Your task to perform on an android device: Go to notification settings Image 0: 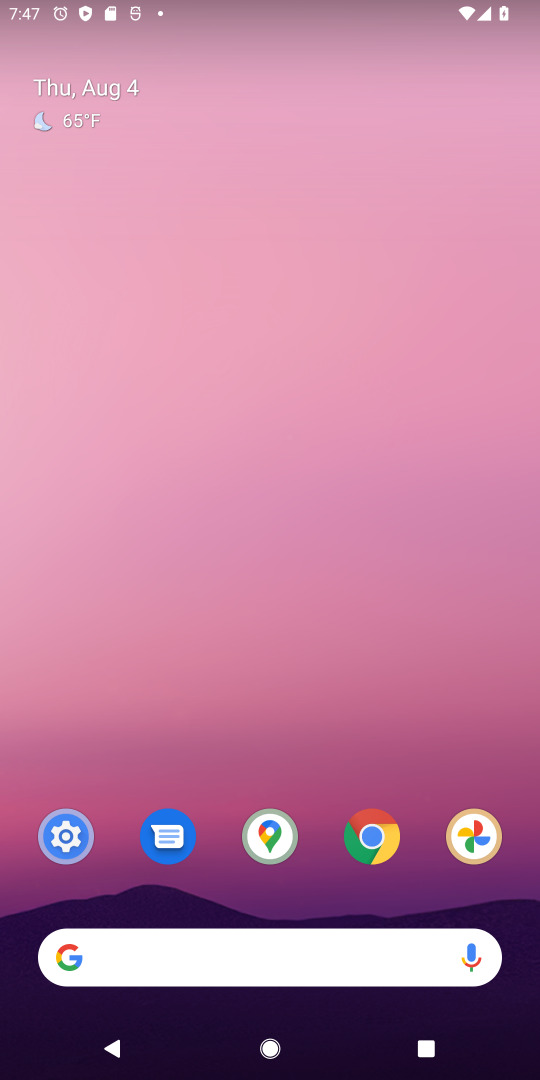
Step 0: drag from (252, 878) to (326, 3)
Your task to perform on an android device: Go to notification settings Image 1: 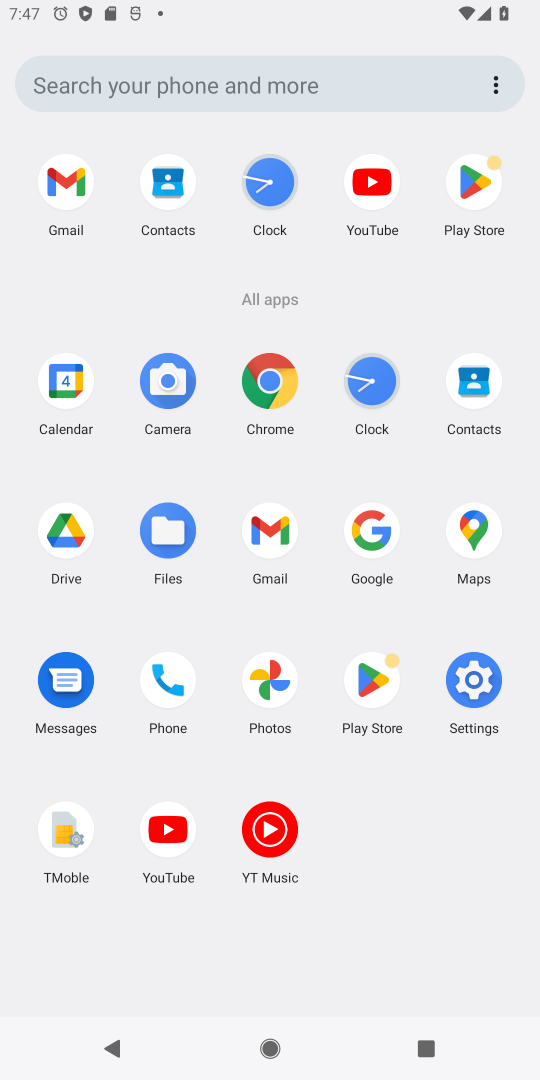
Step 1: click (466, 683)
Your task to perform on an android device: Go to notification settings Image 2: 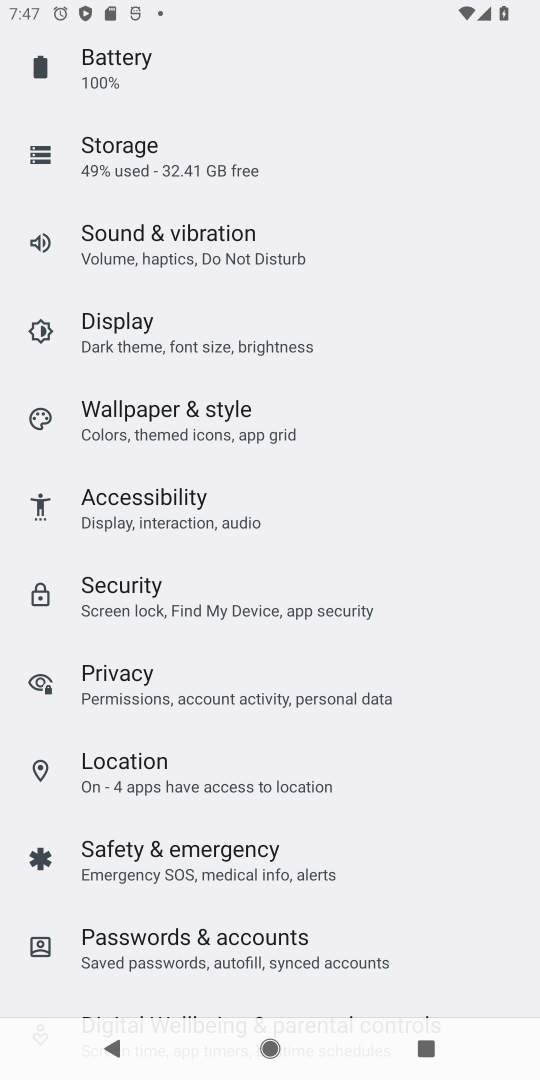
Step 2: drag from (280, 198) to (284, 1047)
Your task to perform on an android device: Go to notification settings Image 3: 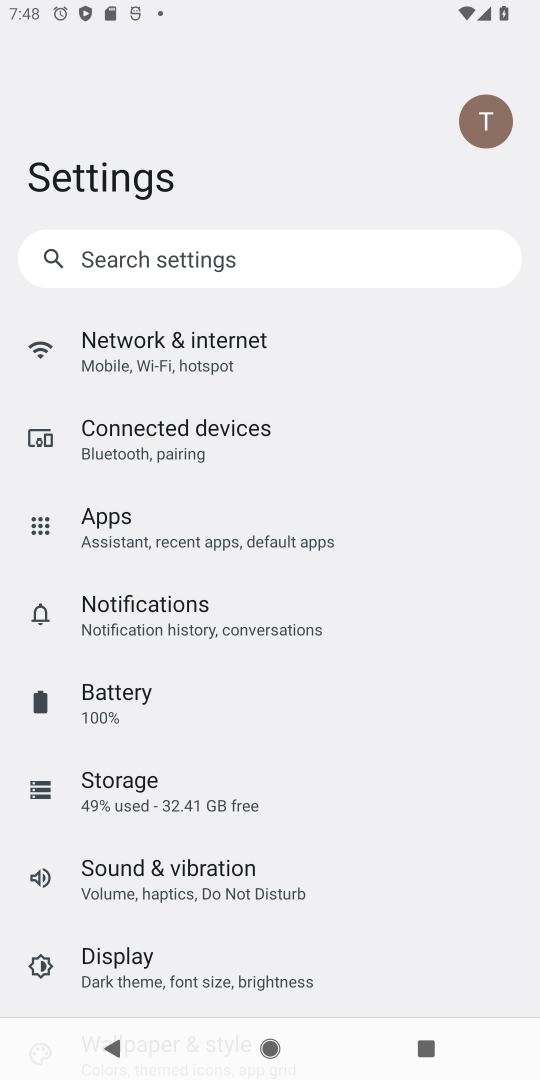
Step 3: click (212, 606)
Your task to perform on an android device: Go to notification settings Image 4: 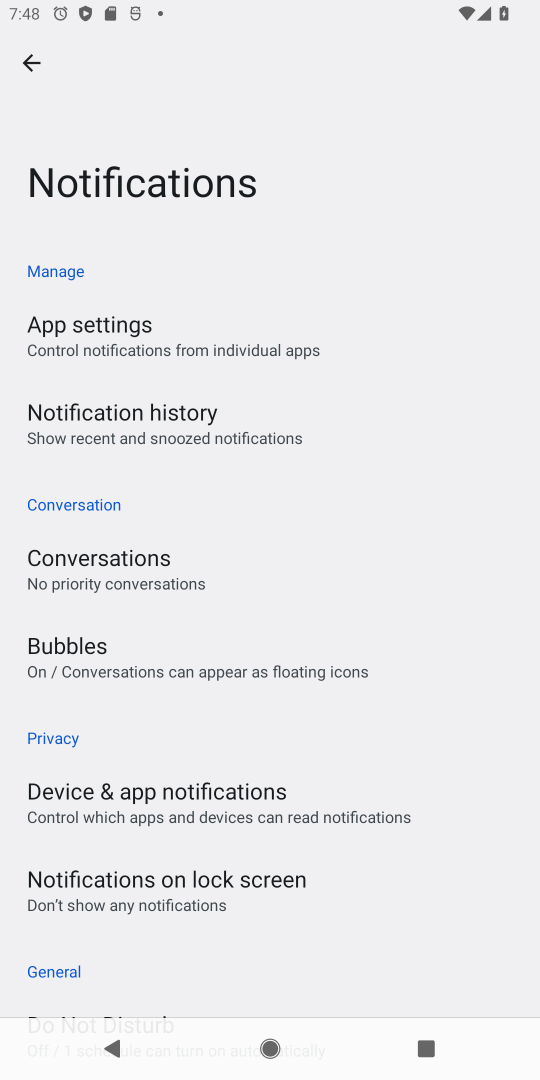
Step 4: task complete